Your task to perform on an android device: turn smart compose on in the gmail app Image 0: 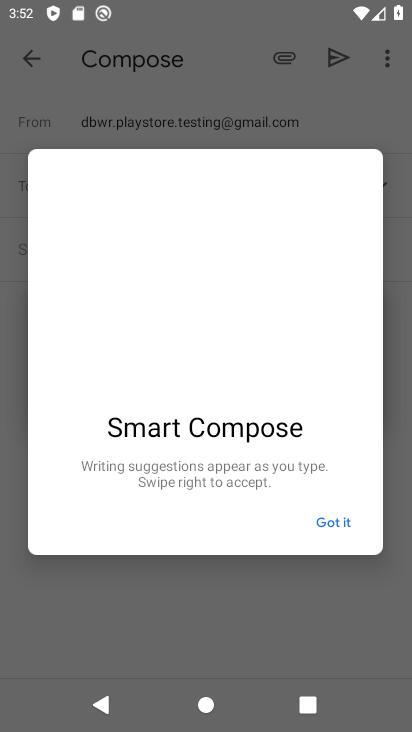
Step 0: press home button
Your task to perform on an android device: turn smart compose on in the gmail app Image 1: 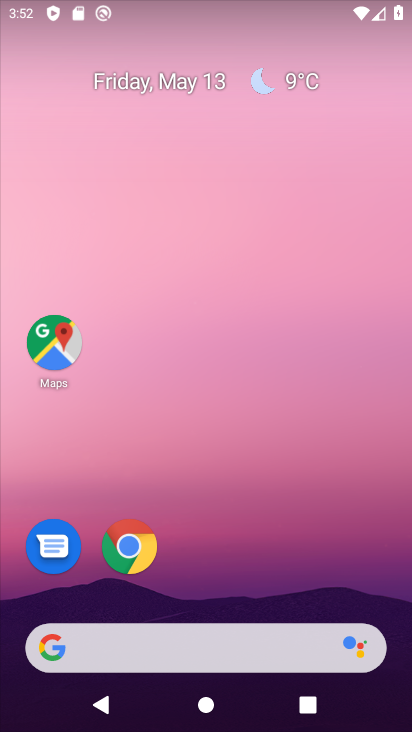
Step 1: drag from (221, 605) to (317, 0)
Your task to perform on an android device: turn smart compose on in the gmail app Image 2: 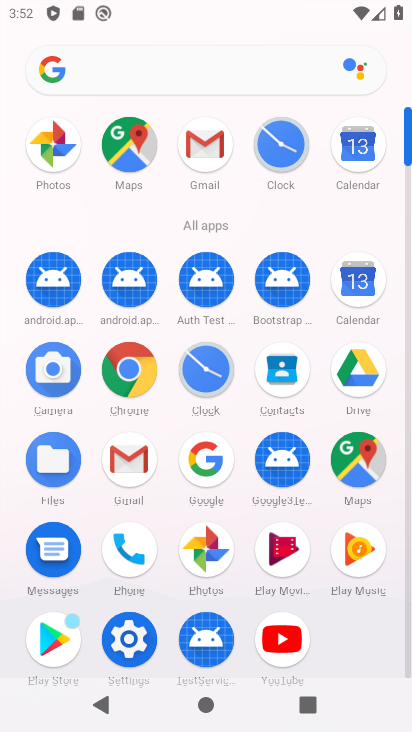
Step 2: click (135, 460)
Your task to perform on an android device: turn smart compose on in the gmail app Image 3: 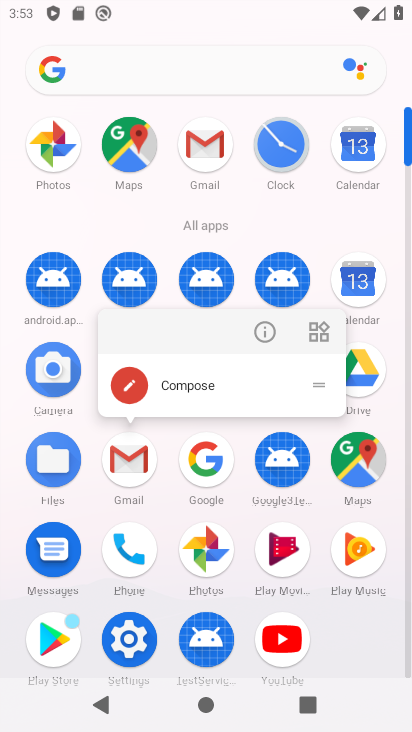
Step 3: click (114, 463)
Your task to perform on an android device: turn smart compose on in the gmail app Image 4: 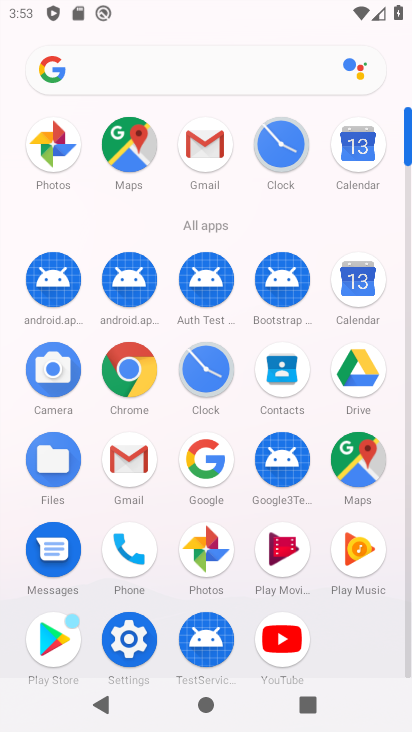
Step 4: click (149, 465)
Your task to perform on an android device: turn smart compose on in the gmail app Image 5: 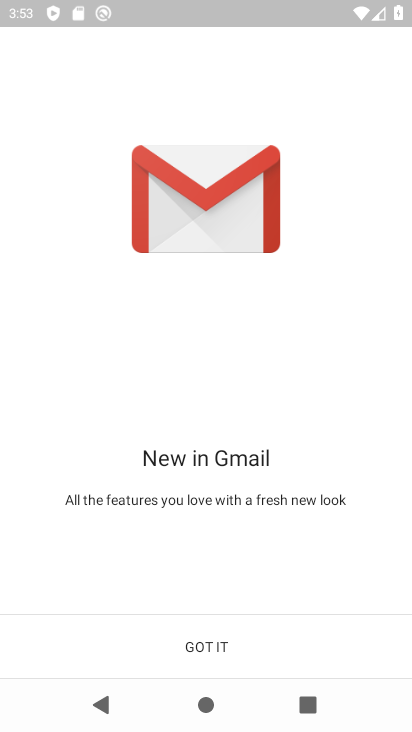
Step 5: click (171, 632)
Your task to perform on an android device: turn smart compose on in the gmail app Image 6: 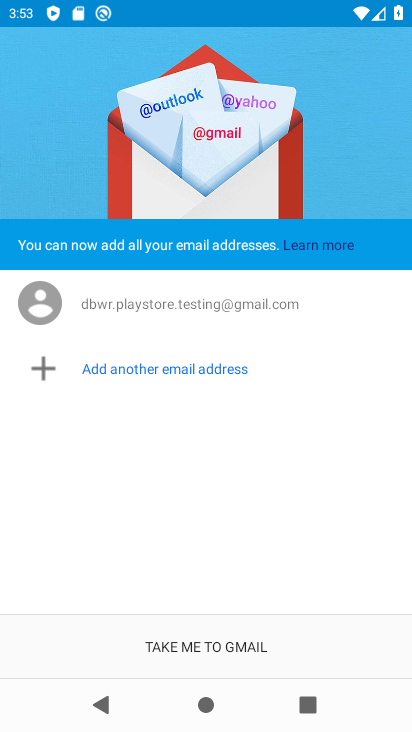
Step 6: click (210, 621)
Your task to perform on an android device: turn smart compose on in the gmail app Image 7: 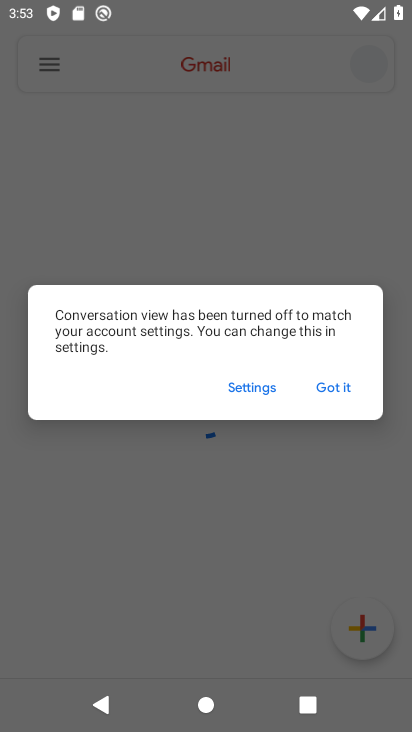
Step 7: click (343, 387)
Your task to perform on an android device: turn smart compose on in the gmail app Image 8: 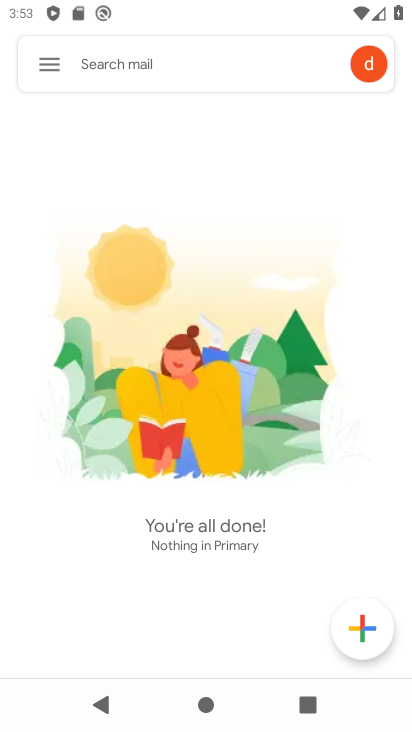
Step 8: click (57, 61)
Your task to perform on an android device: turn smart compose on in the gmail app Image 9: 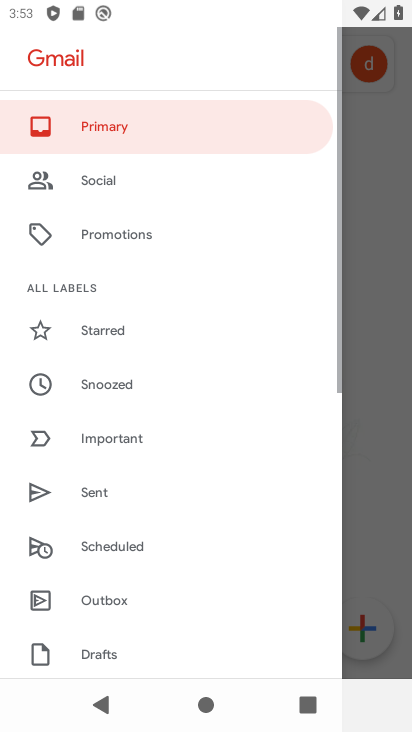
Step 9: drag from (70, 618) to (18, 76)
Your task to perform on an android device: turn smart compose on in the gmail app Image 10: 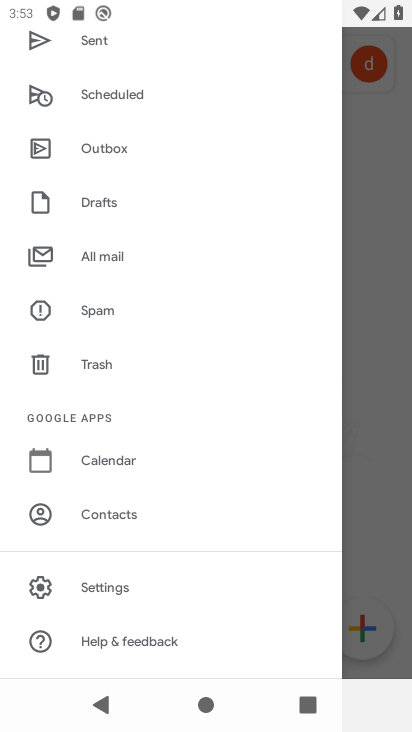
Step 10: click (108, 582)
Your task to perform on an android device: turn smart compose on in the gmail app Image 11: 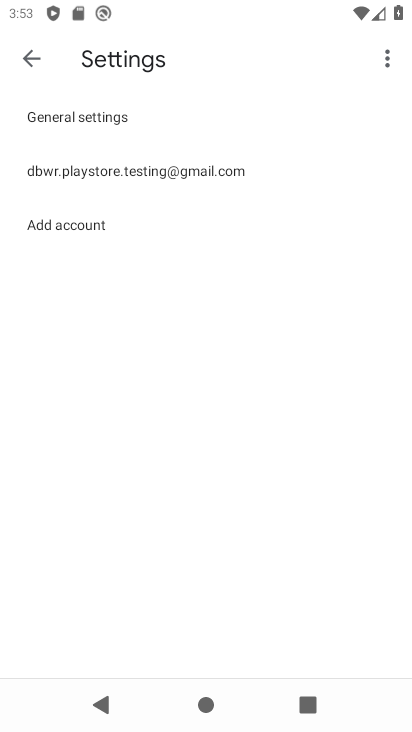
Step 11: click (106, 173)
Your task to perform on an android device: turn smart compose on in the gmail app Image 12: 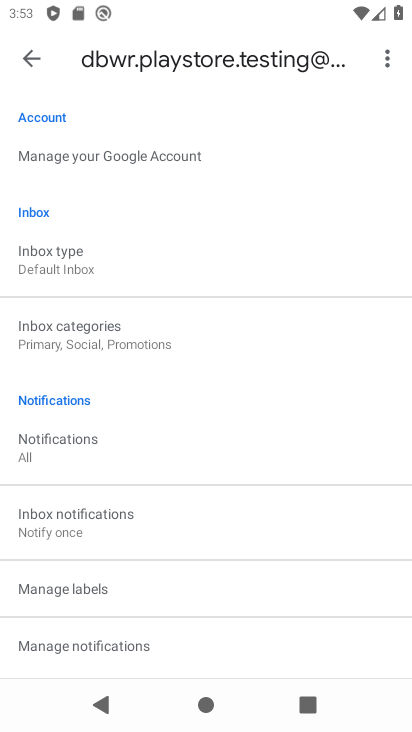
Step 12: task complete